Your task to perform on an android device: check android version Image 0: 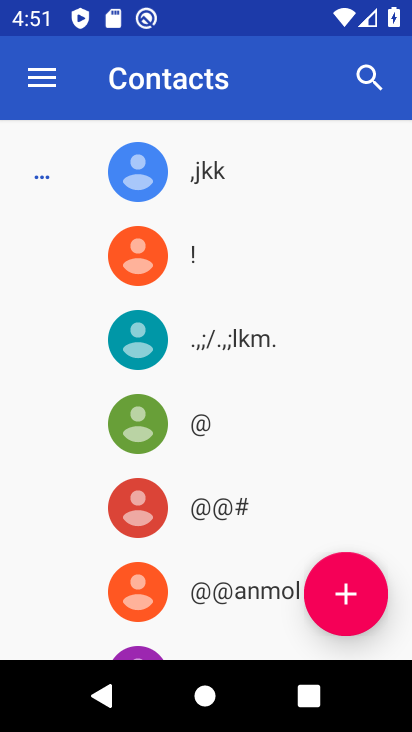
Step 0: press home button
Your task to perform on an android device: check android version Image 1: 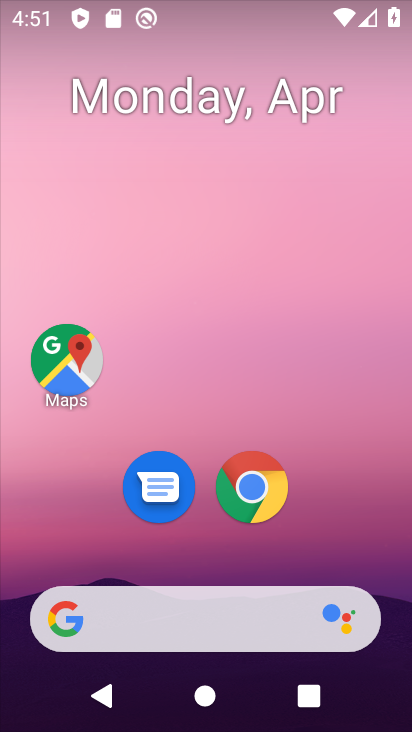
Step 1: drag from (359, 558) to (295, 209)
Your task to perform on an android device: check android version Image 2: 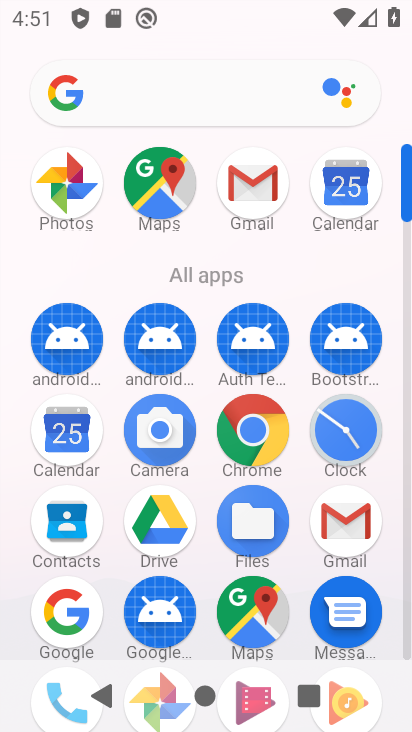
Step 2: click (408, 631)
Your task to perform on an android device: check android version Image 3: 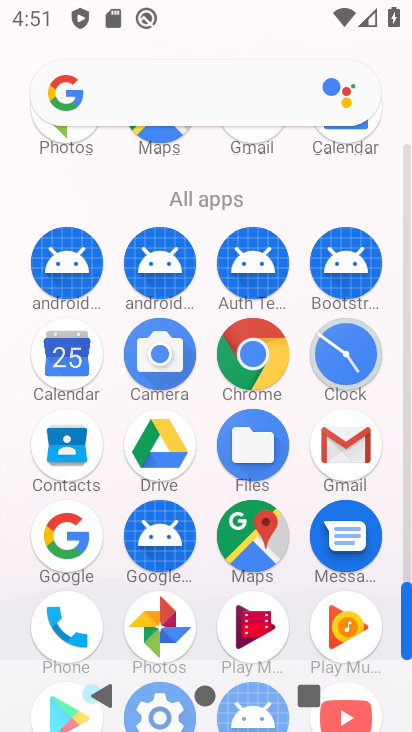
Step 3: click (406, 666)
Your task to perform on an android device: check android version Image 4: 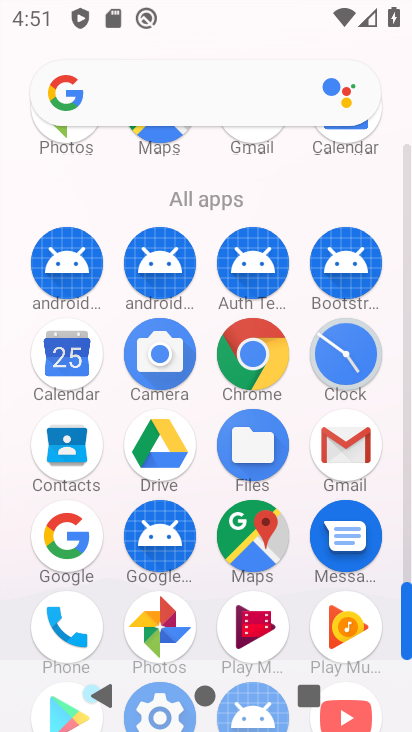
Step 4: drag from (390, 549) to (376, 375)
Your task to perform on an android device: check android version Image 5: 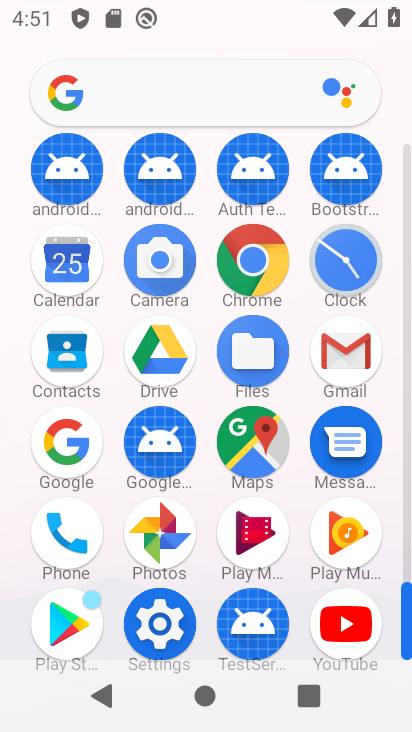
Step 5: click (182, 609)
Your task to perform on an android device: check android version Image 6: 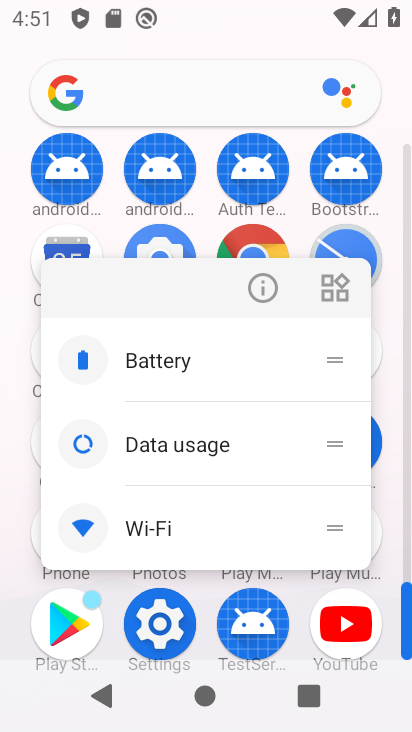
Step 6: click (182, 609)
Your task to perform on an android device: check android version Image 7: 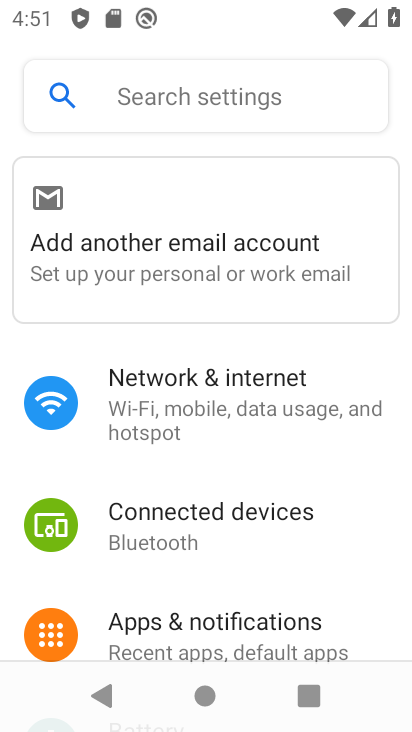
Step 7: task complete